Your task to perform on an android device: make emails show in primary in the gmail app Image 0: 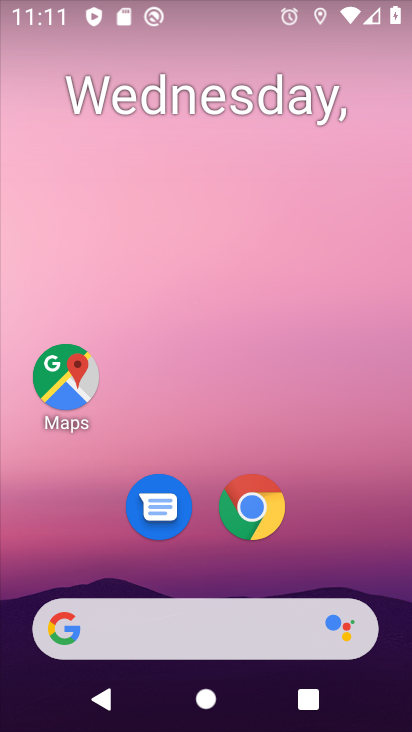
Step 0: drag from (359, 551) to (347, 132)
Your task to perform on an android device: make emails show in primary in the gmail app Image 1: 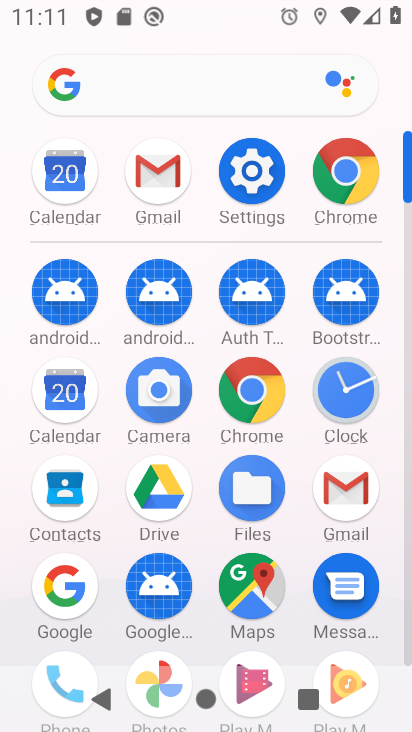
Step 1: click (360, 492)
Your task to perform on an android device: make emails show in primary in the gmail app Image 2: 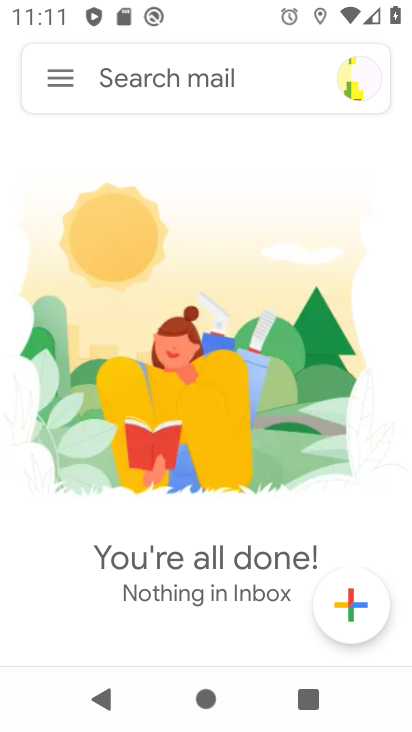
Step 2: click (68, 89)
Your task to perform on an android device: make emails show in primary in the gmail app Image 3: 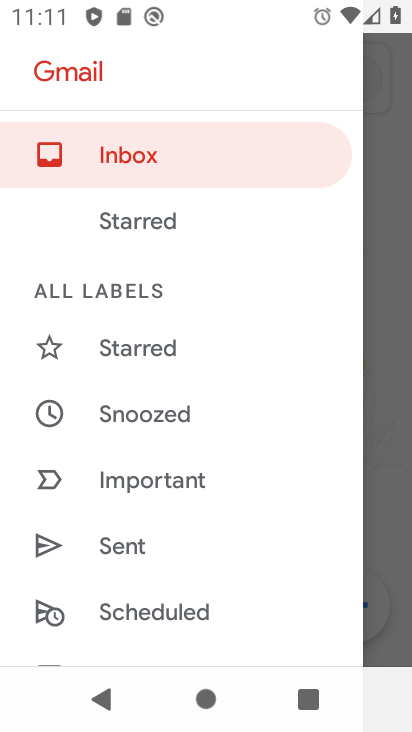
Step 3: drag from (272, 536) to (276, 349)
Your task to perform on an android device: make emails show in primary in the gmail app Image 4: 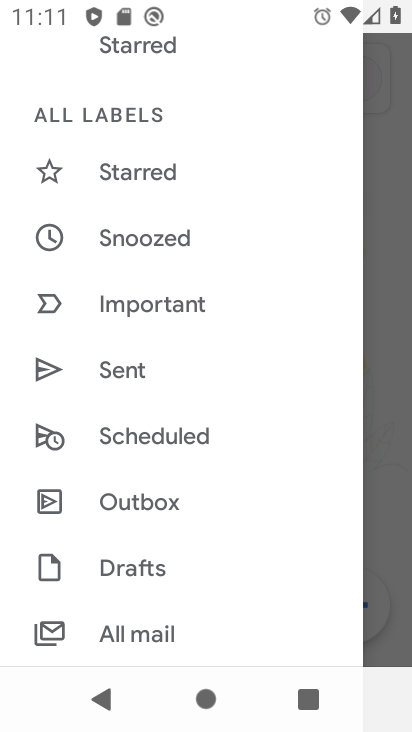
Step 4: drag from (279, 557) to (274, 393)
Your task to perform on an android device: make emails show in primary in the gmail app Image 5: 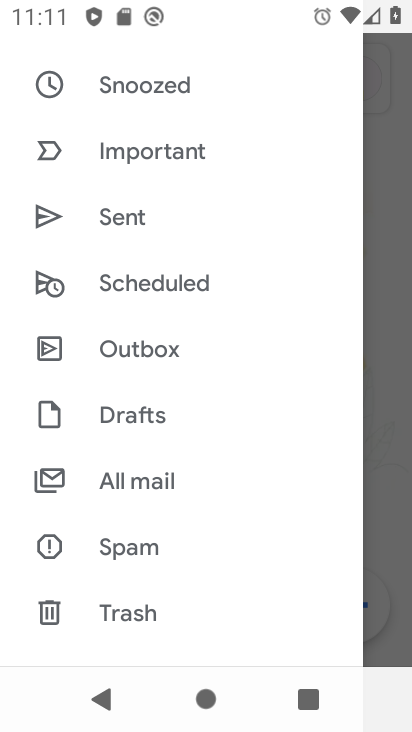
Step 5: drag from (280, 568) to (298, 440)
Your task to perform on an android device: make emails show in primary in the gmail app Image 6: 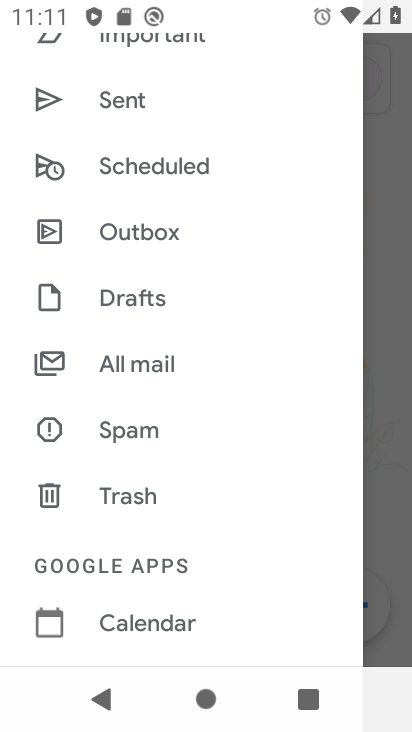
Step 6: drag from (285, 560) to (287, 408)
Your task to perform on an android device: make emails show in primary in the gmail app Image 7: 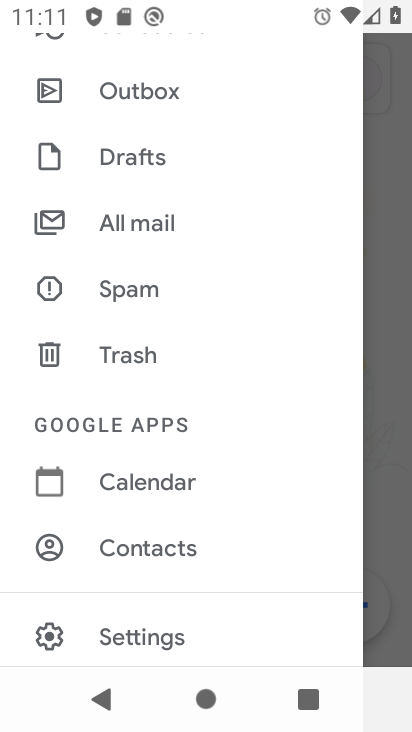
Step 7: drag from (276, 595) to (281, 416)
Your task to perform on an android device: make emails show in primary in the gmail app Image 8: 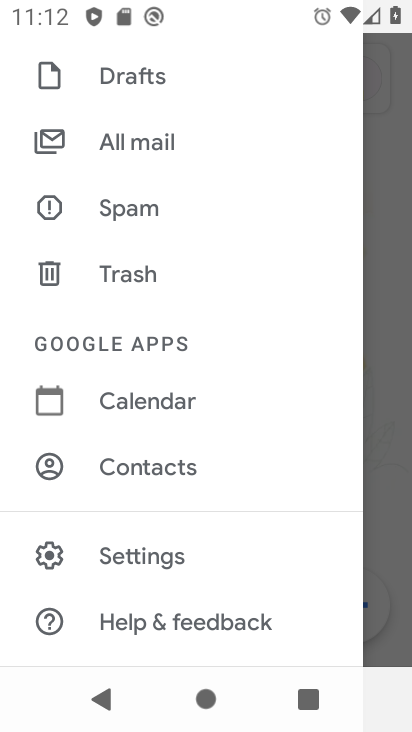
Step 8: click (171, 551)
Your task to perform on an android device: make emails show in primary in the gmail app Image 9: 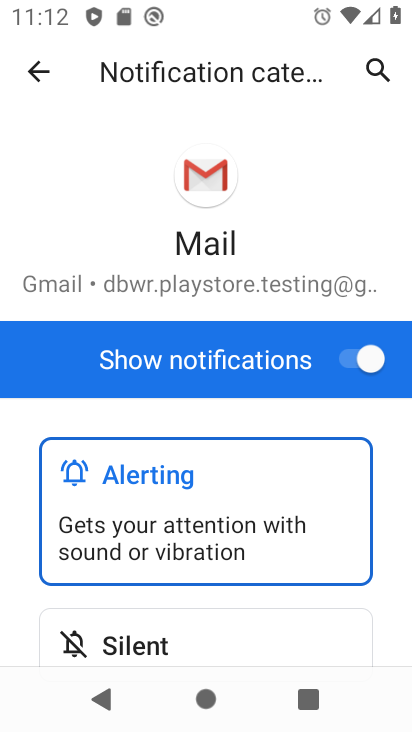
Step 9: click (45, 69)
Your task to perform on an android device: make emails show in primary in the gmail app Image 10: 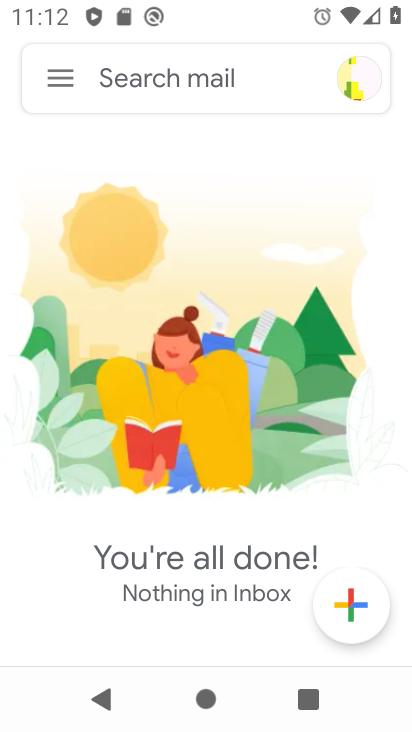
Step 10: click (51, 72)
Your task to perform on an android device: make emails show in primary in the gmail app Image 11: 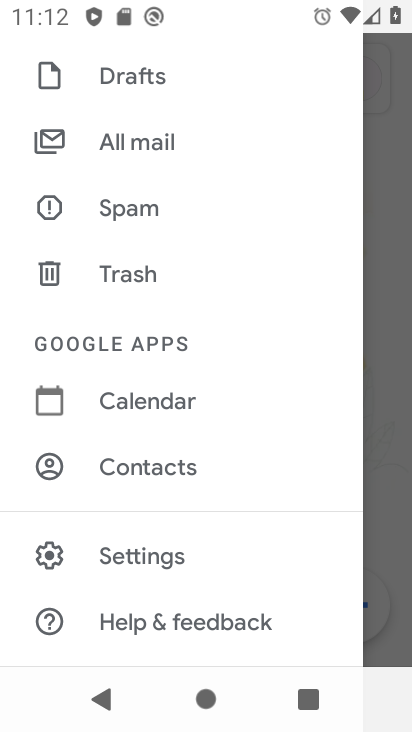
Step 11: click (169, 557)
Your task to perform on an android device: make emails show in primary in the gmail app Image 12: 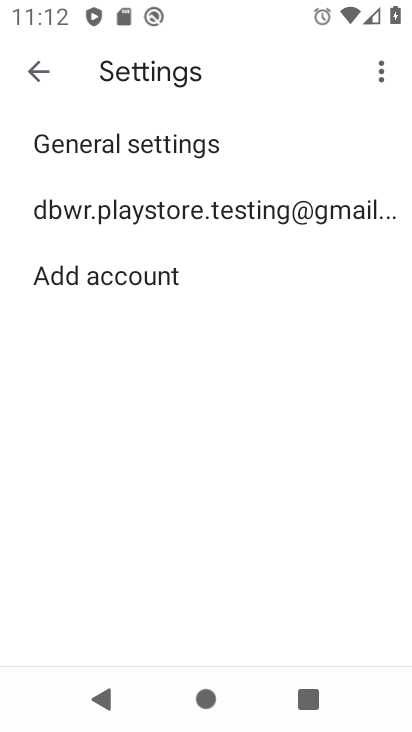
Step 12: click (239, 209)
Your task to perform on an android device: make emails show in primary in the gmail app Image 13: 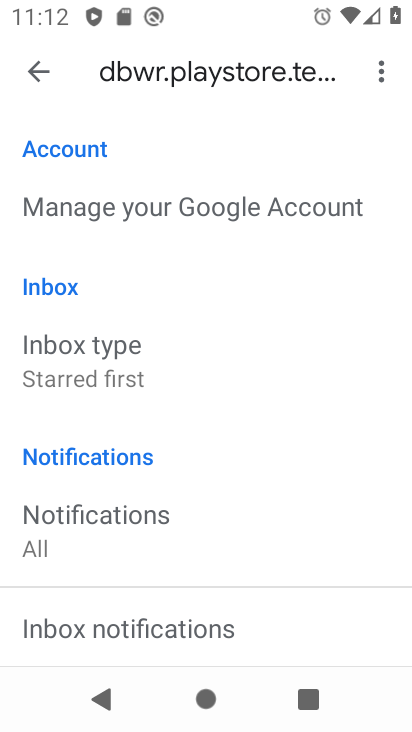
Step 13: drag from (262, 504) to (267, 378)
Your task to perform on an android device: make emails show in primary in the gmail app Image 14: 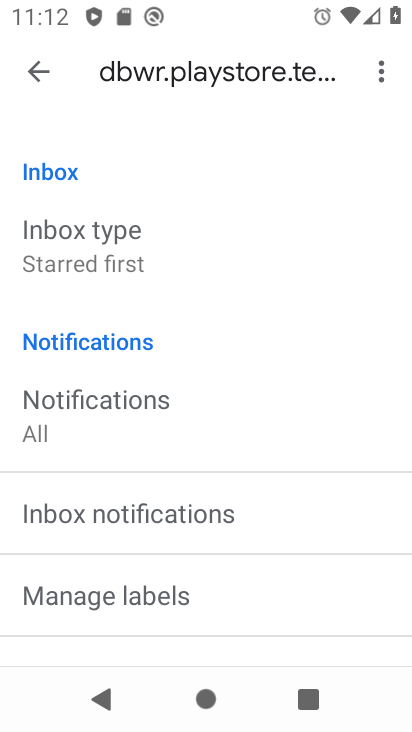
Step 14: click (110, 240)
Your task to perform on an android device: make emails show in primary in the gmail app Image 15: 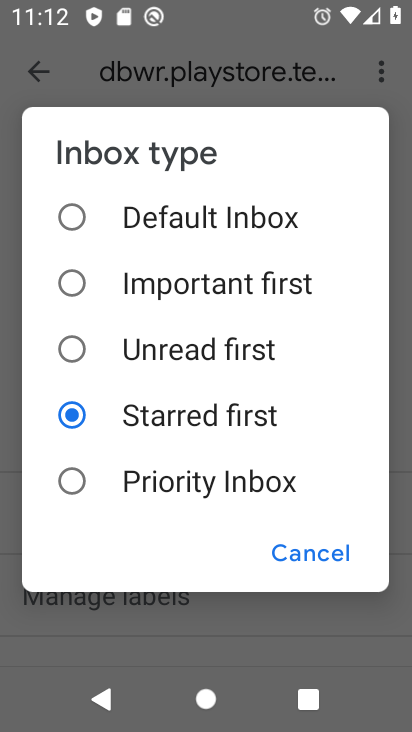
Step 15: click (215, 236)
Your task to perform on an android device: make emails show in primary in the gmail app Image 16: 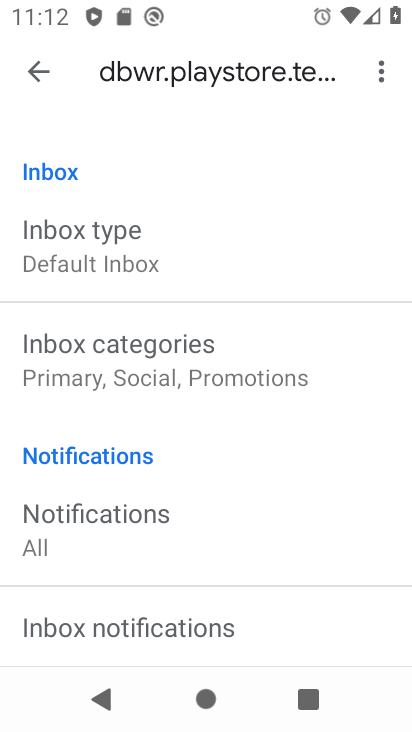
Step 16: click (194, 357)
Your task to perform on an android device: make emails show in primary in the gmail app Image 17: 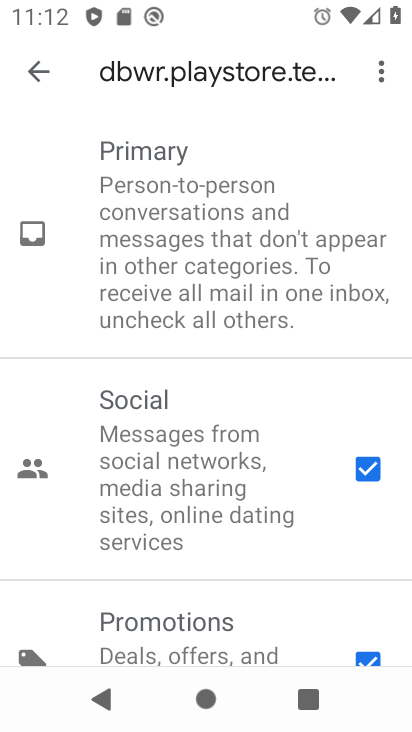
Step 17: click (364, 473)
Your task to perform on an android device: make emails show in primary in the gmail app Image 18: 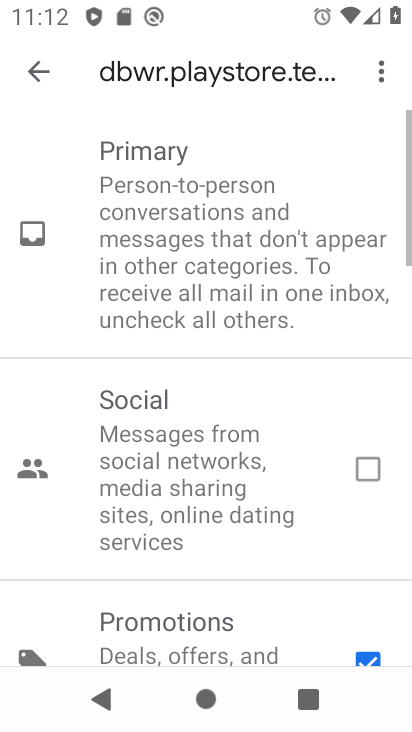
Step 18: drag from (310, 564) to (290, 293)
Your task to perform on an android device: make emails show in primary in the gmail app Image 19: 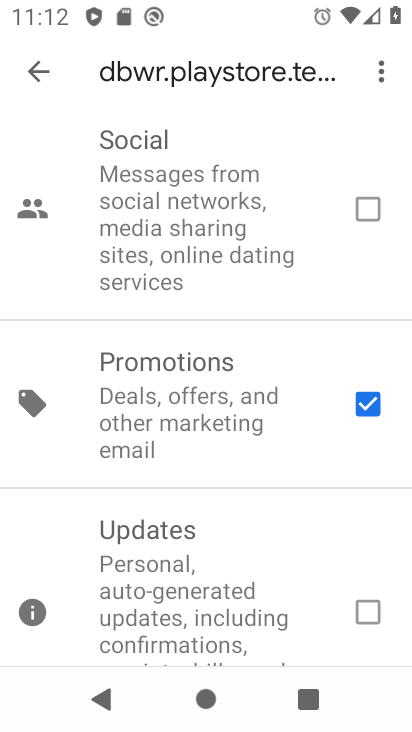
Step 19: click (356, 414)
Your task to perform on an android device: make emails show in primary in the gmail app Image 20: 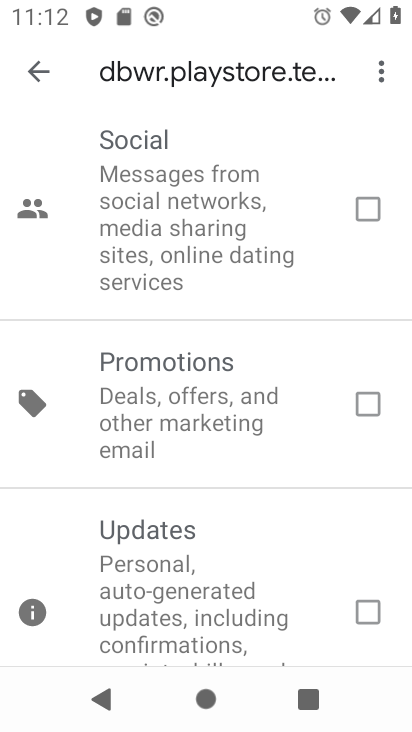
Step 20: task complete